Your task to perform on an android device: see sites visited before in the chrome app Image 0: 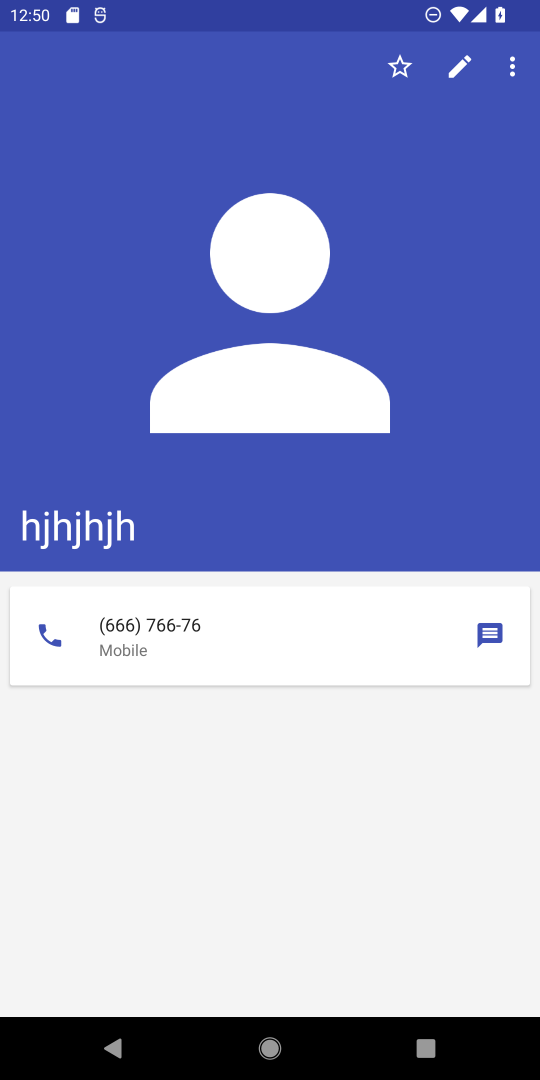
Step 0: press home button
Your task to perform on an android device: see sites visited before in the chrome app Image 1: 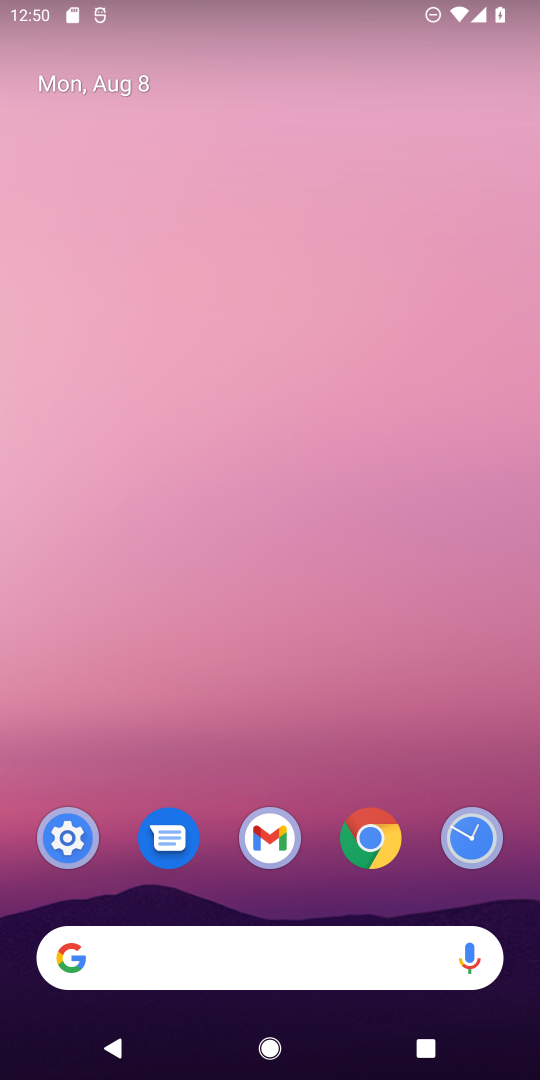
Step 1: click (375, 833)
Your task to perform on an android device: see sites visited before in the chrome app Image 2: 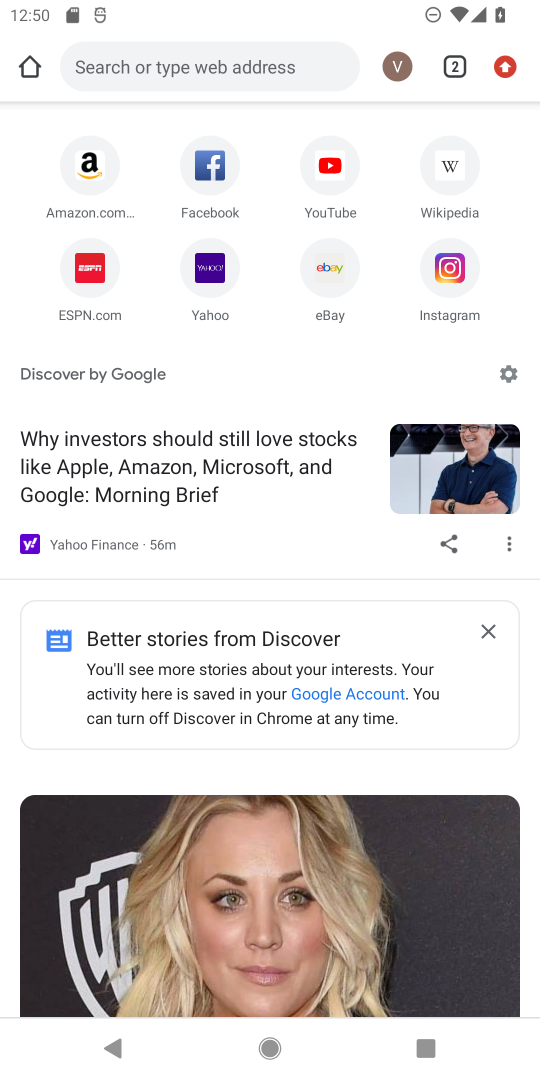
Step 2: drag from (497, 63) to (354, 667)
Your task to perform on an android device: see sites visited before in the chrome app Image 3: 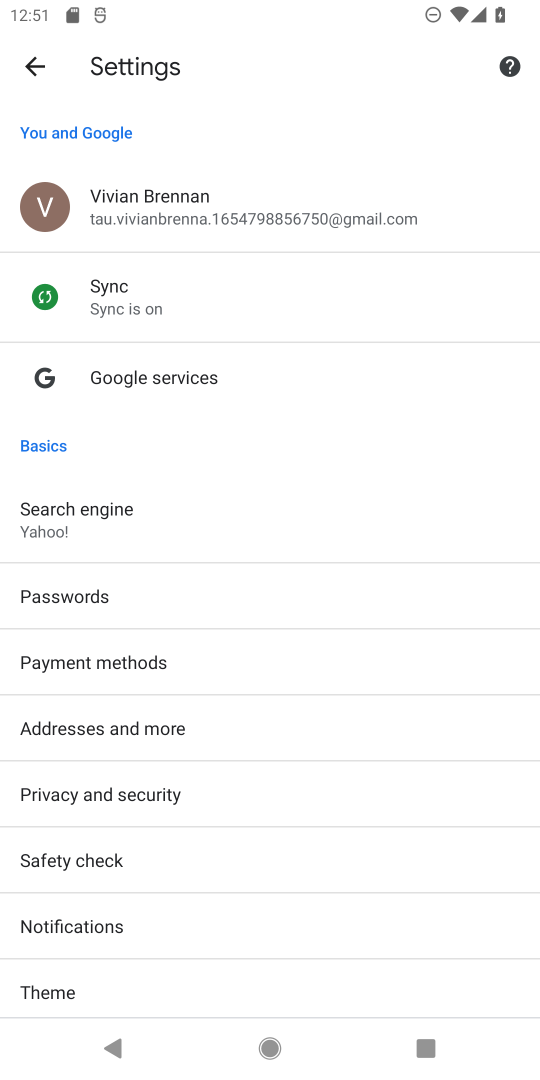
Step 3: click (23, 59)
Your task to perform on an android device: see sites visited before in the chrome app Image 4: 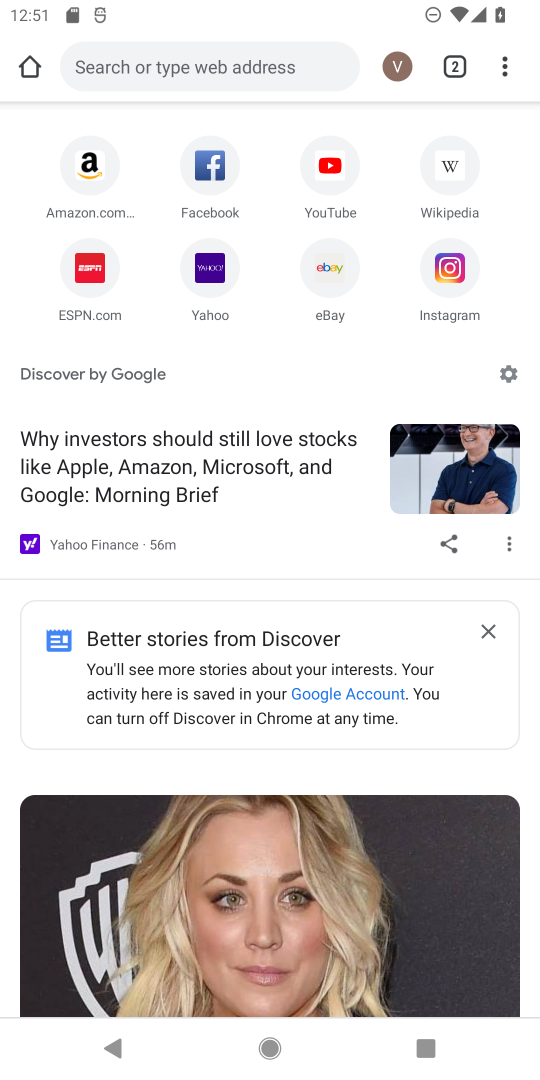
Step 4: task complete